Your task to perform on an android device: allow cookies in the chrome app Image 0: 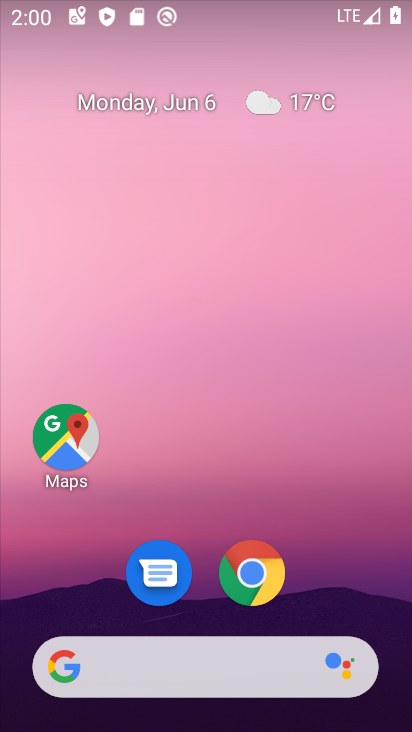
Step 0: drag from (361, 599) to (367, 245)
Your task to perform on an android device: allow cookies in the chrome app Image 1: 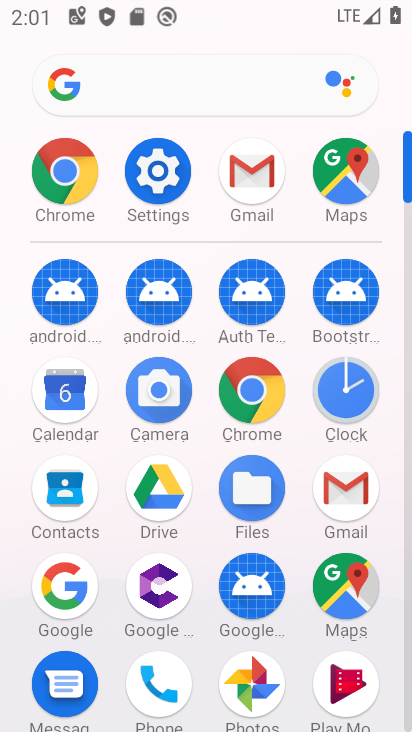
Step 1: click (273, 399)
Your task to perform on an android device: allow cookies in the chrome app Image 2: 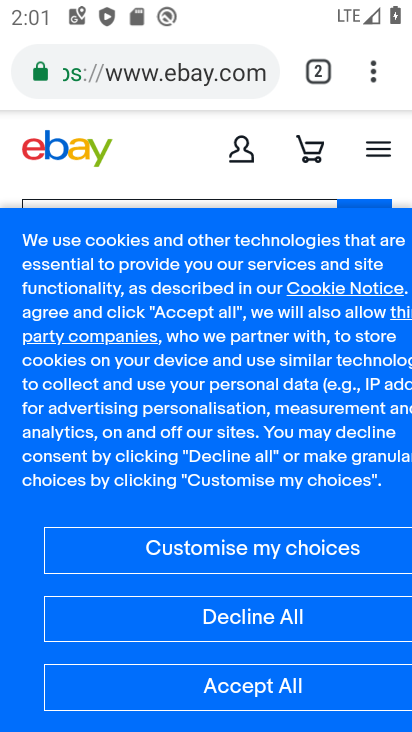
Step 2: click (373, 76)
Your task to perform on an android device: allow cookies in the chrome app Image 3: 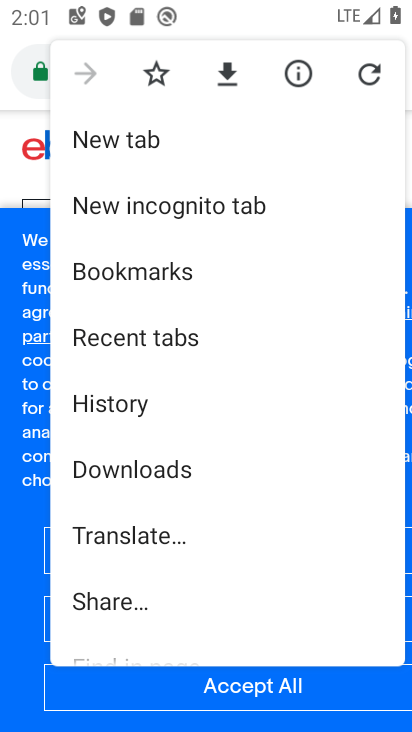
Step 3: drag from (344, 529) to (344, 438)
Your task to perform on an android device: allow cookies in the chrome app Image 4: 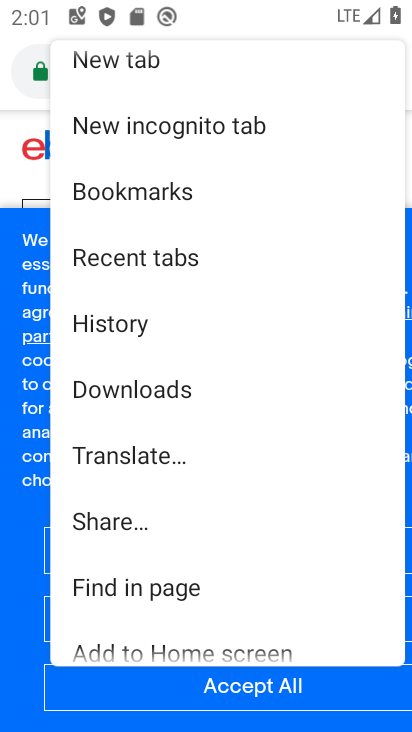
Step 4: drag from (325, 578) to (335, 466)
Your task to perform on an android device: allow cookies in the chrome app Image 5: 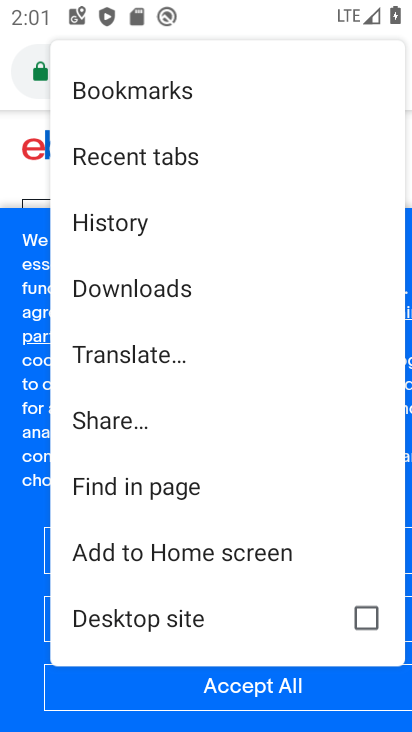
Step 5: drag from (293, 598) to (299, 401)
Your task to perform on an android device: allow cookies in the chrome app Image 6: 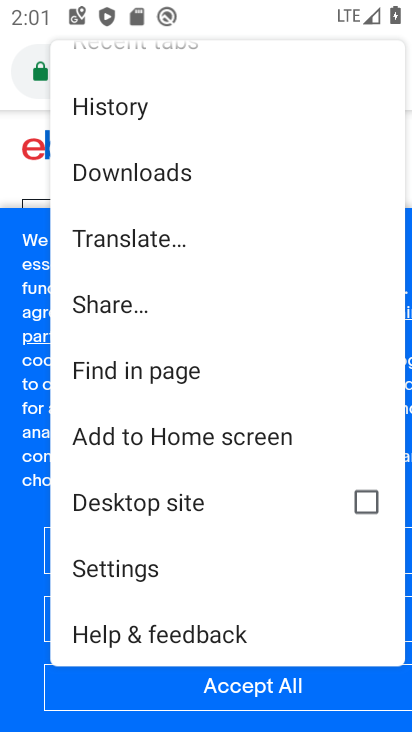
Step 6: click (182, 576)
Your task to perform on an android device: allow cookies in the chrome app Image 7: 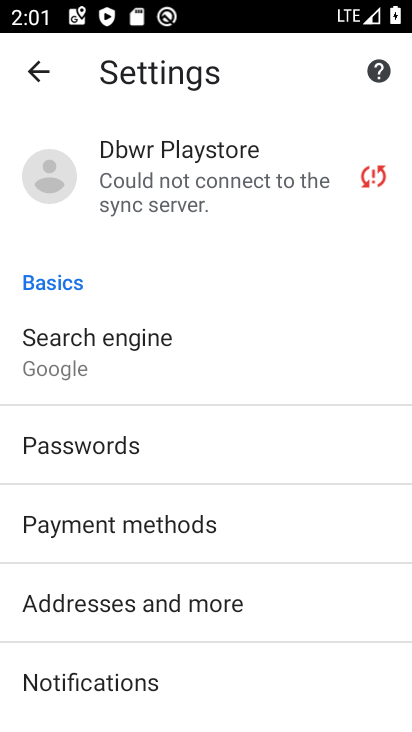
Step 7: drag from (327, 578) to (328, 514)
Your task to perform on an android device: allow cookies in the chrome app Image 8: 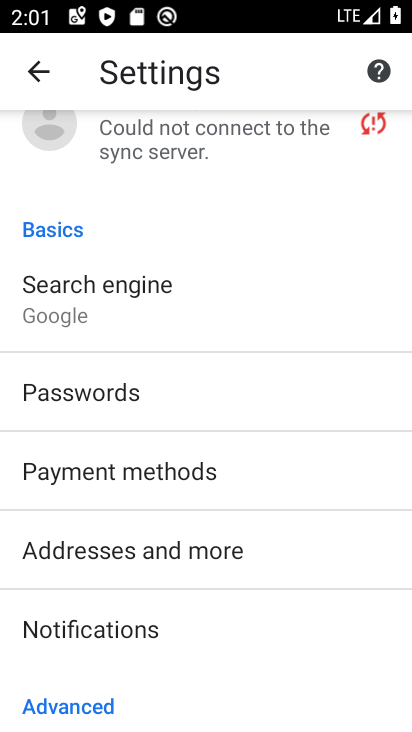
Step 8: drag from (335, 626) to (341, 544)
Your task to perform on an android device: allow cookies in the chrome app Image 9: 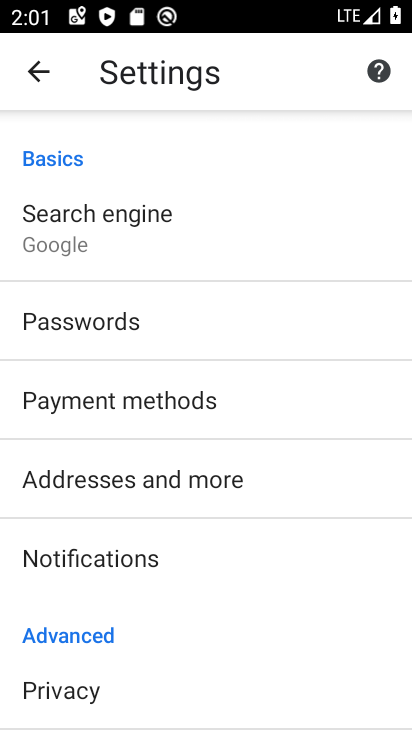
Step 9: drag from (333, 632) to (331, 542)
Your task to perform on an android device: allow cookies in the chrome app Image 10: 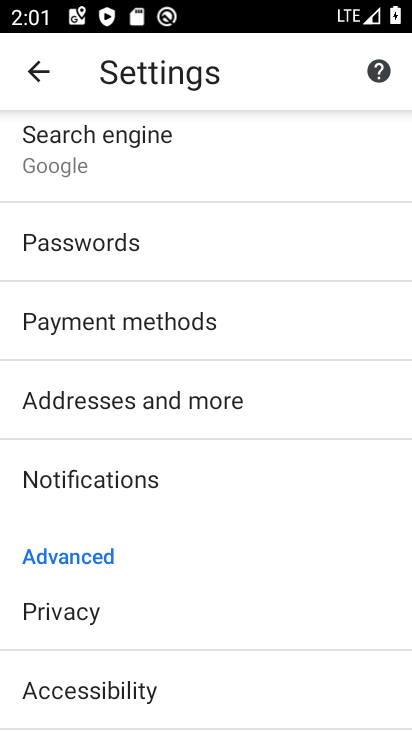
Step 10: drag from (322, 642) to (323, 557)
Your task to perform on an android device: allow cookies in the chrome app Image 11: 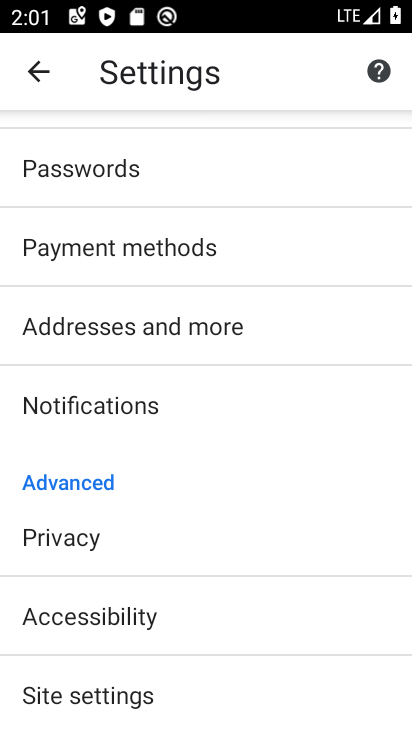
Step 11: drag from (311, 640) to (298, 531)
Your task to perform on an android device: allow cookies in the chrome app Image 12: 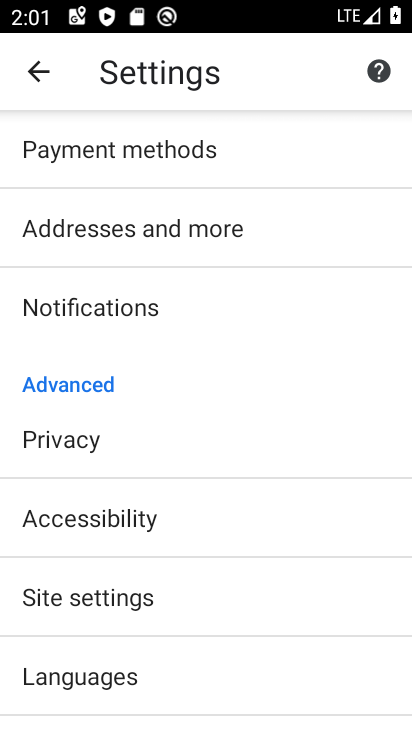
Step 12: drag from (311, 644) to (307, 537)
Your task to perform on an android device: allow cookies in the chrome app Image 13: 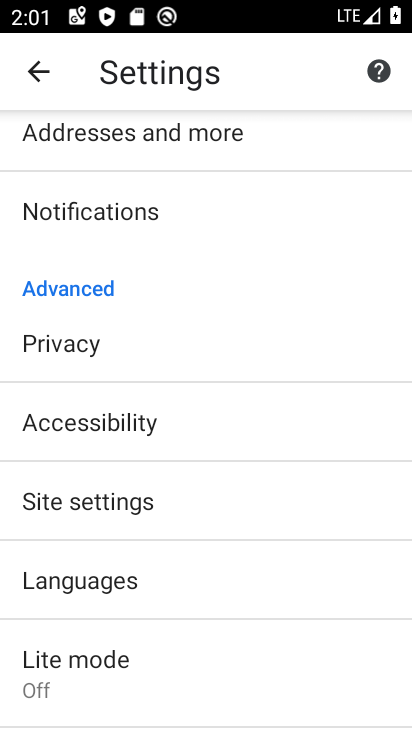
Step 13: click (215, 505)
Your task to perform on an android device: allow cookies in the chrome app Image 14: 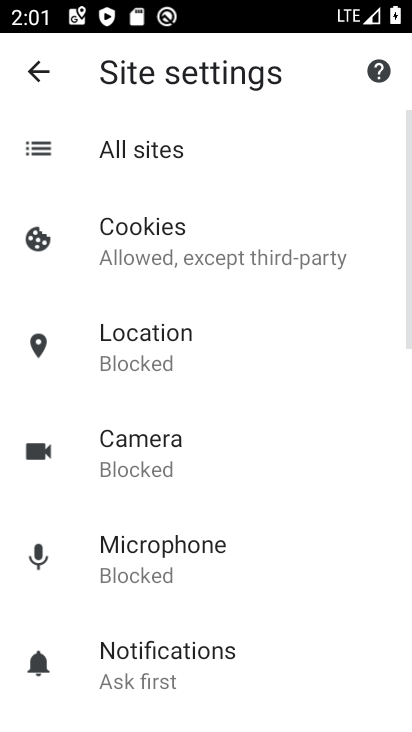
Step 14: drag from (318, 534) to (320, 457)
Your task to perform on an android device: allow cookies in the chrome app Image 15: 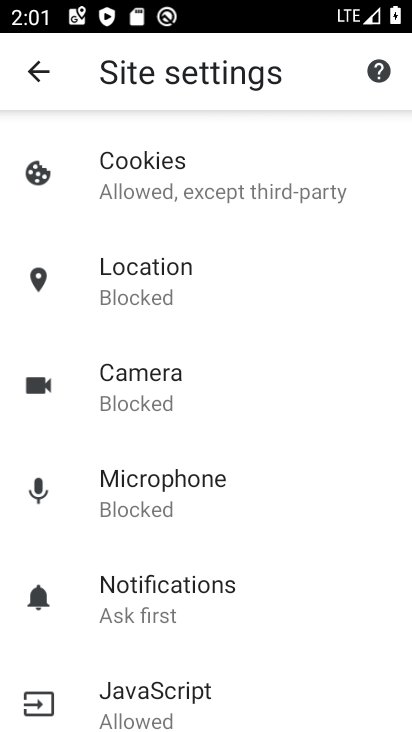
Step 15: drag from (349, 589) to (334, 473)
Your task to perform on an android device: allow cookies in the chrome app Image 16: 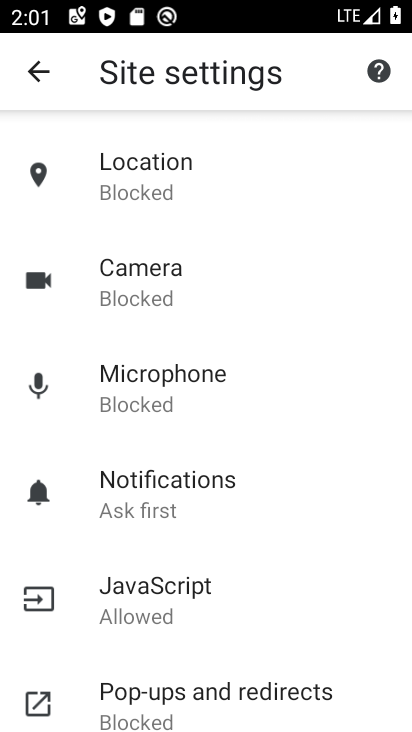
Step 16: drag from (327, 579) to (328, 442)
Your task to perform on an android device: allow cookies in the chrome app Image 17: 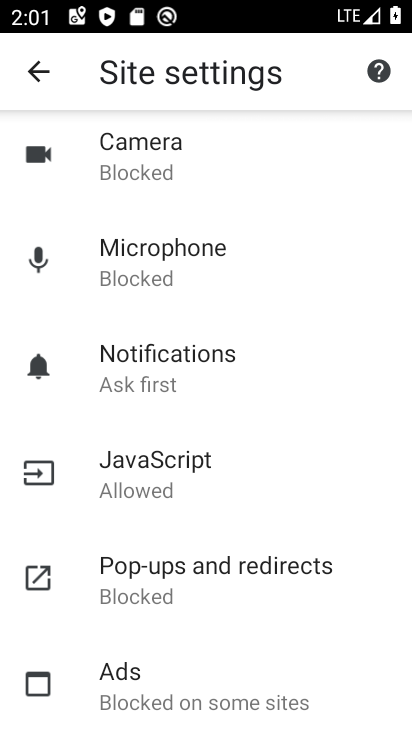
Step 17: drag from (362, 640) to (347, 441)
Your task to perform on an android device: allow cookies in the chrome app Image 18: 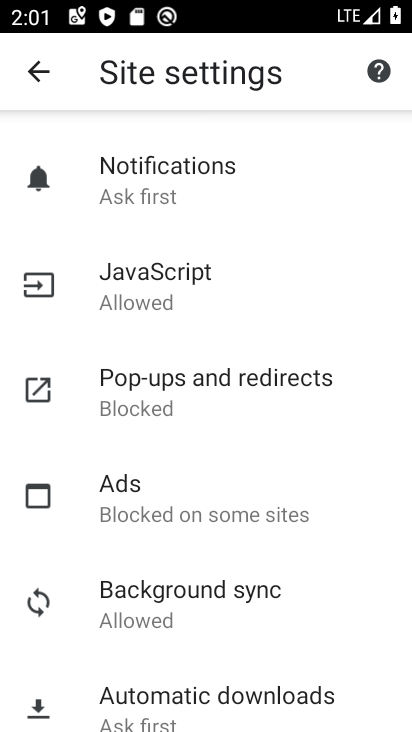
Step 18: drag from (350, 320) to (359, 439)
Your task to perform on an android device: allow cookies in the chrome app Image 19: 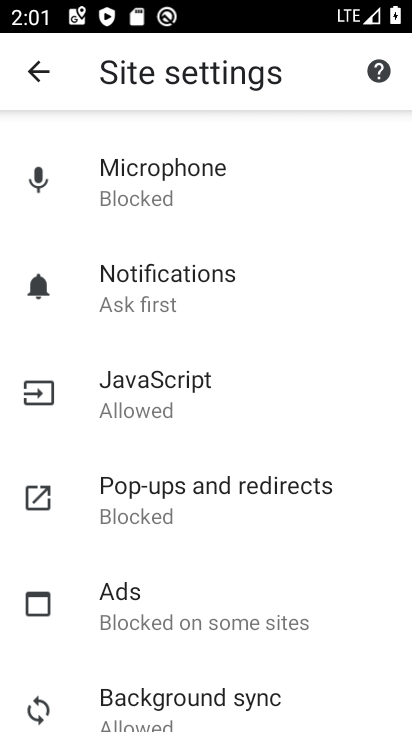
Step 19: drag from (349, 323) to (351, 453)
Your task to perform on an android device: allow cookies in the chrome app Image 20: 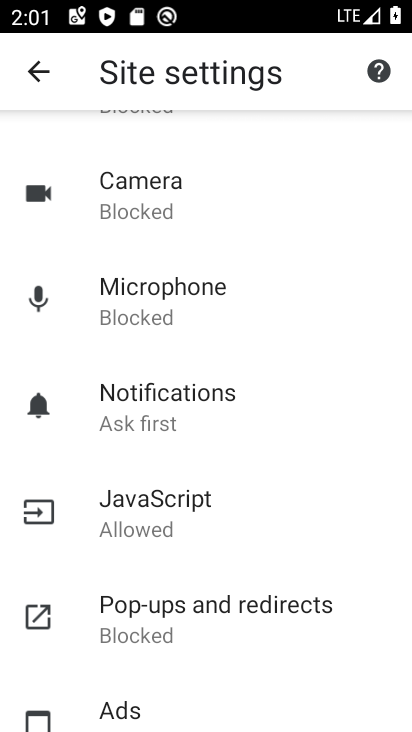
Step 20: drag from (346, 349) to (348, 498)
Your task to perform on an android device: allow cookies in the chrome app Image 21: 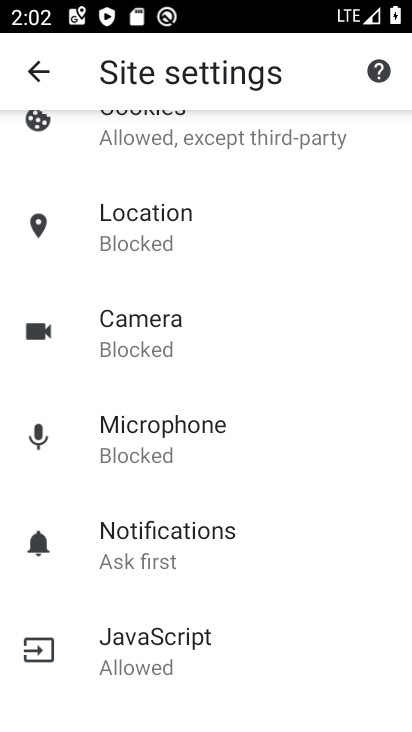
Step 21: drag from (323, 332) to (329, 490)
Your task to perform on an android device: allow cookies in the chrome app Image 22: 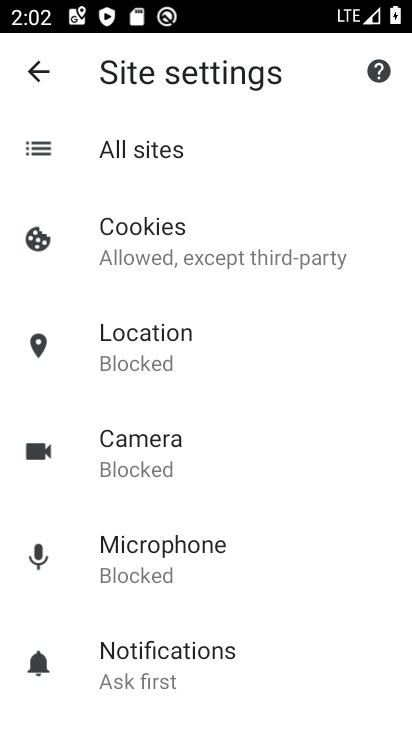
Step 22: click (259, 257)
Your task to perform on an android device: allow cookies in the chrome app Image 23: 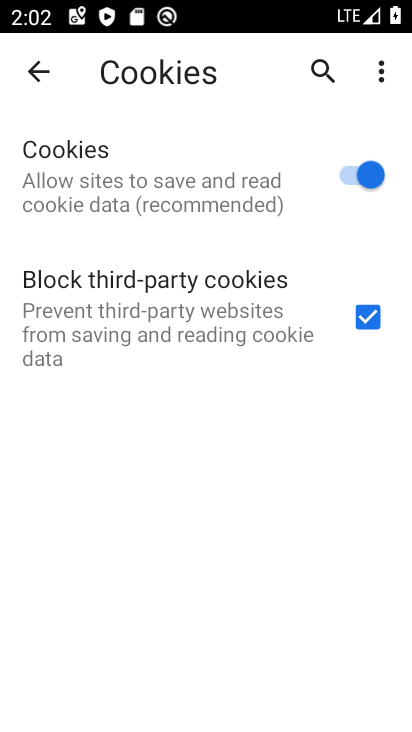
Step 23: task complete